Your task to perform on an android device: Open battery settings Image 0: 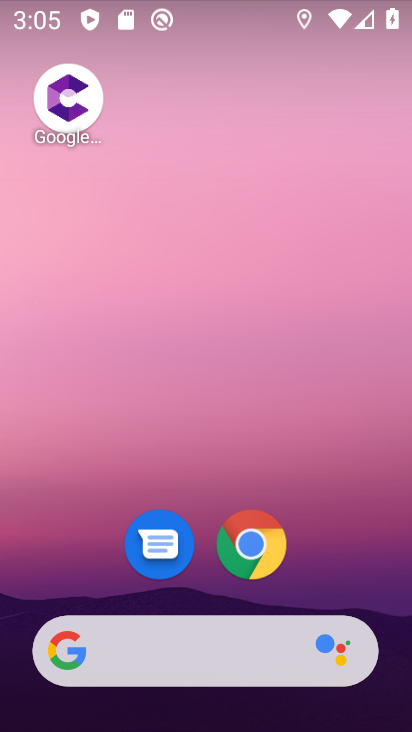
Step 0: click (340, 1)
Your task to perform on an android device: Open battery settings Image 1: 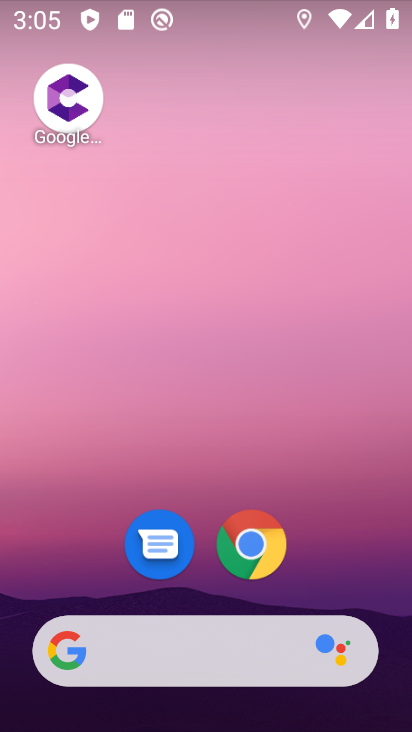
Step 1: drag from (144, 698) to (156, 113)
Your task to perform on an android device: Open battery settings Image 2: 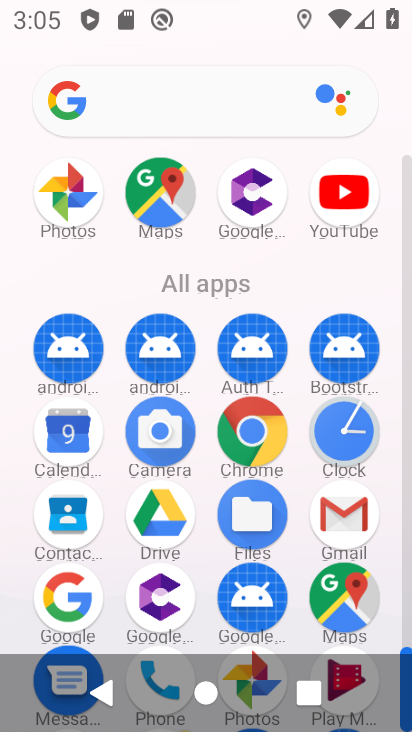
Step 2: drag from (245, 532) to (249, 128)
Your task to perform on an android device: Open battery settings Image 3: 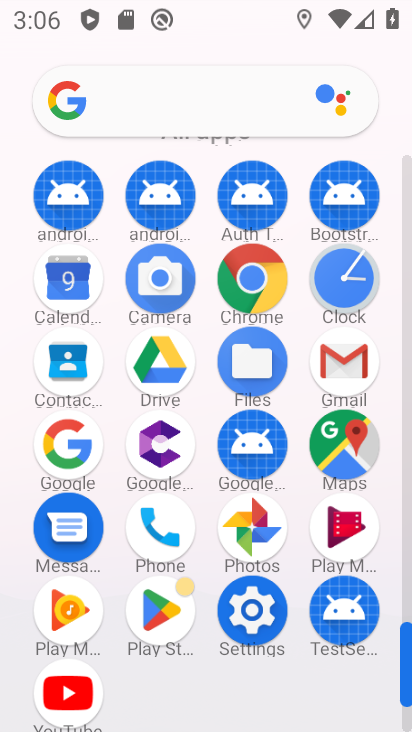
Step 3: click (266, 605)
Your task to perform on an android device: Open battery settings Image 4: 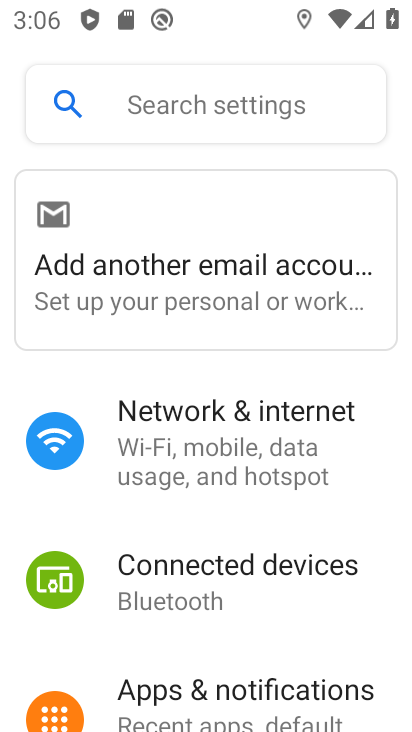
Step 4: drag from (303, 655) to (269, 55)
Your task to perform on an android device: Open battery settings Image 5: 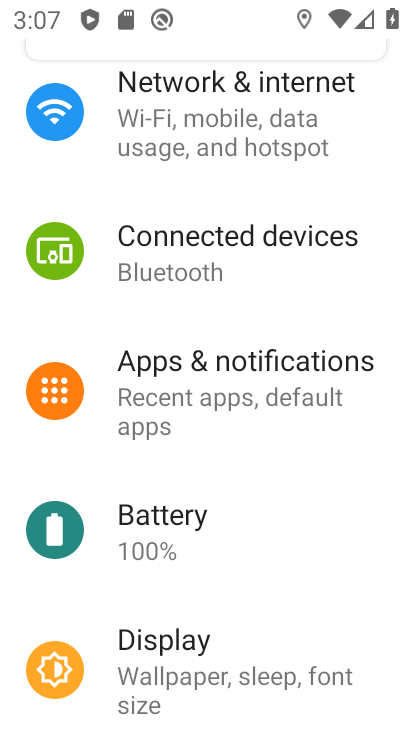
Step 5: click (222, 537)
Your task to perform on an android device: Open battery settings Image 6: 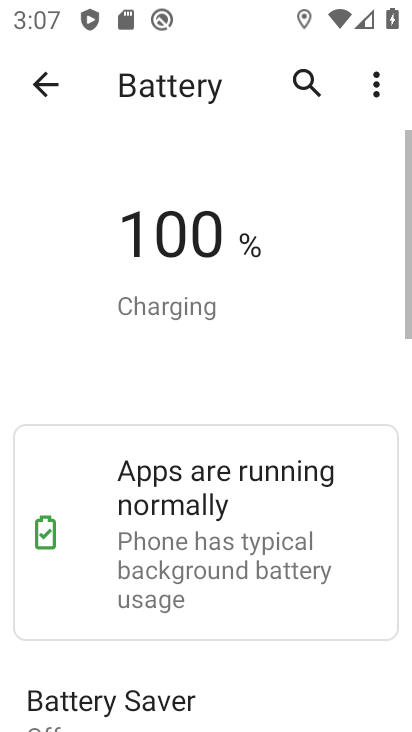
Step 6: task complete